Your task to perform on an android device: delete a single message in the gmail app Image 0: 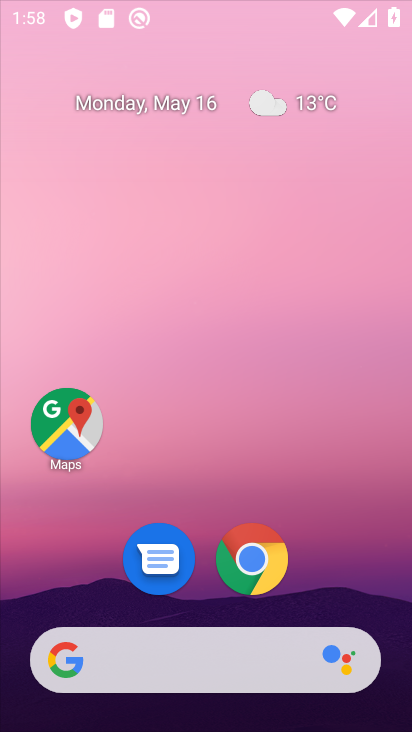
Step 0: click (257, 565)
Your task to perform on an android device: delete a single message in the gmail app Image 1: 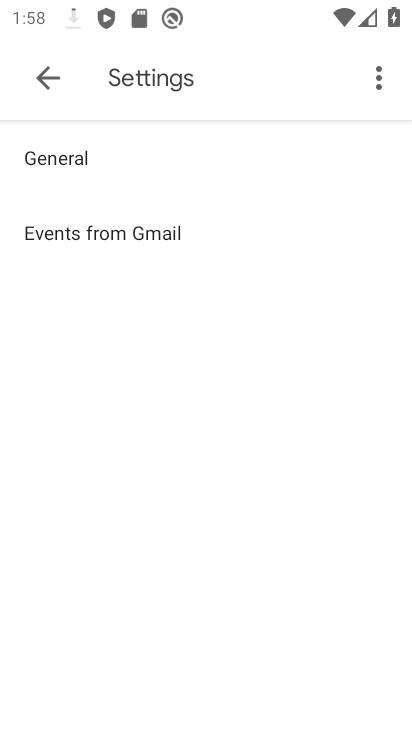
Step 1: click (35, 71)
Your task to perform on an android device: delete a single message in the gmail app Image 2: 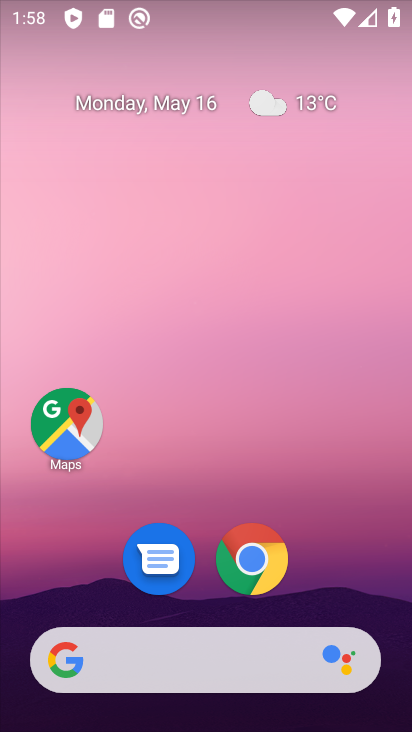
Step 2: drag from (185, 534) to (279, 49)
Your task to perform on an android device: delete a single message in the gmail app Image 3: 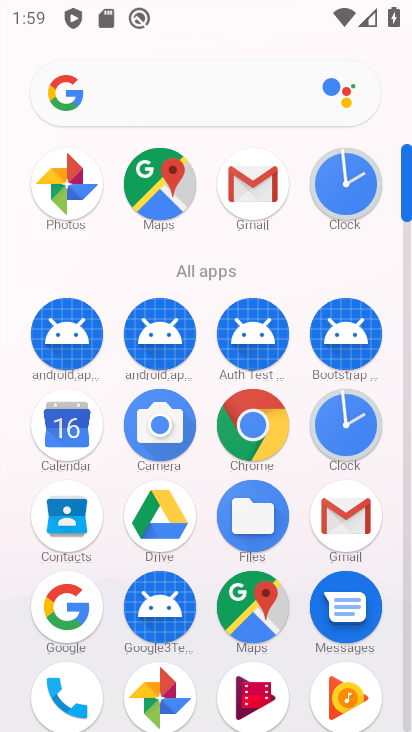
Step 3: click (240, 187)
Your task to perform on an android device: delete a single message in the gmail app Image 4: 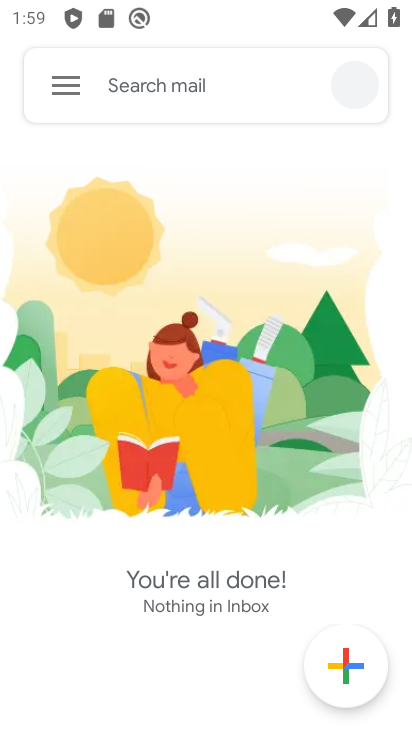
Step 4: click (66, 82)
Your task to perform on an android device: delete a single message in the gmail app Image 5: 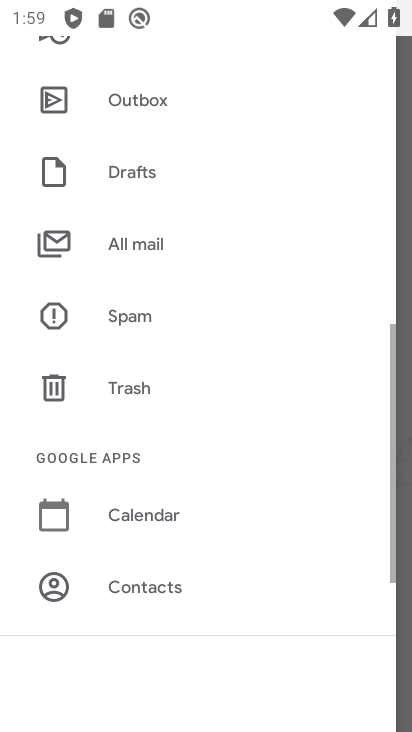
Step 5: click (172, 245)
Your task to perform on an android device: delete a single message in the gmail app Image 6: 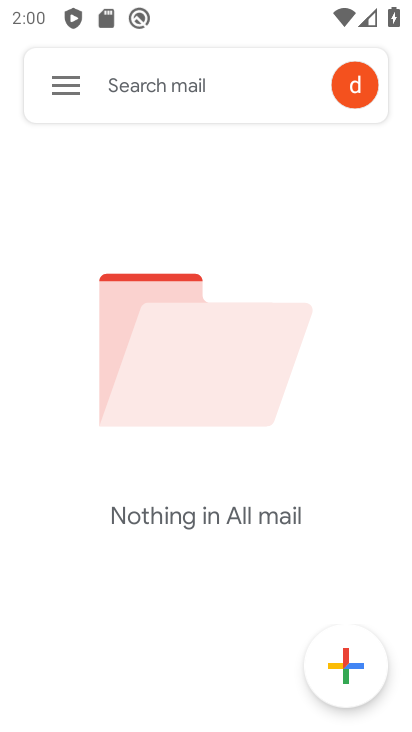
Step 6: task complete